Your task to perform on an android device: turn pop-ups on in chrome Image 0: 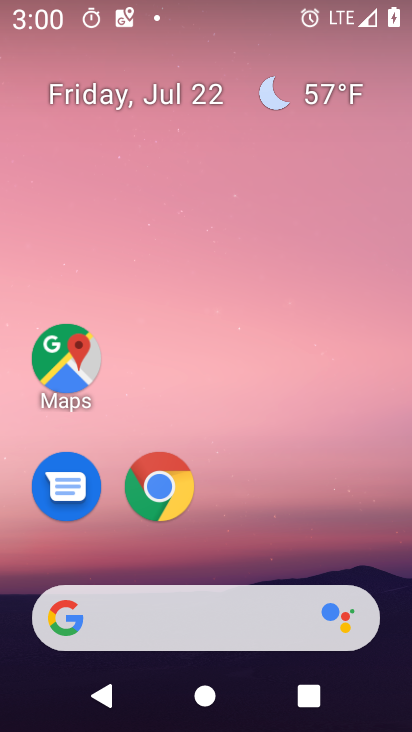
Step 0: press home button
Your task to perform on an android device: turn pop-ups on in chrome Image 1: 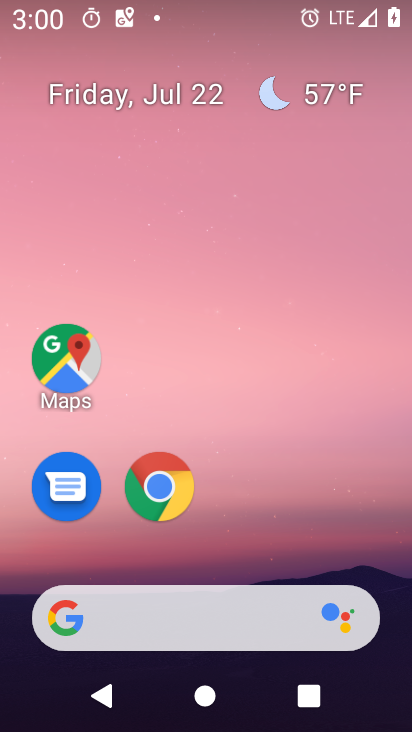
Step 1: drag from (373, 508) to (369, 142)
Your task to perform on an android device: turn pop-ups on in chrome Image 2: 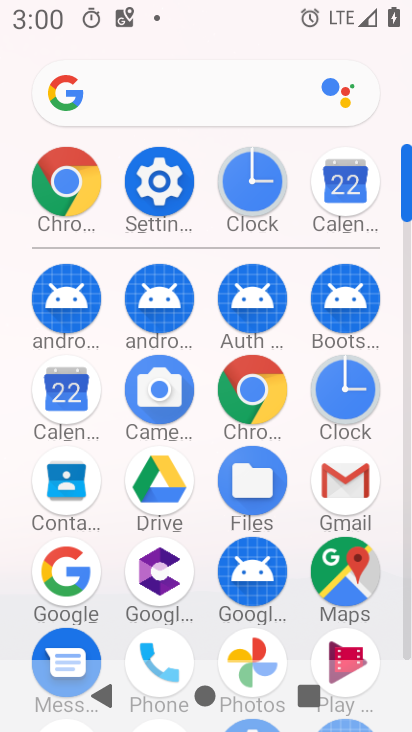
Step 2: click (264, 391)
Your task to perform on an android device: turn pop-ups on in chrome Image 3: 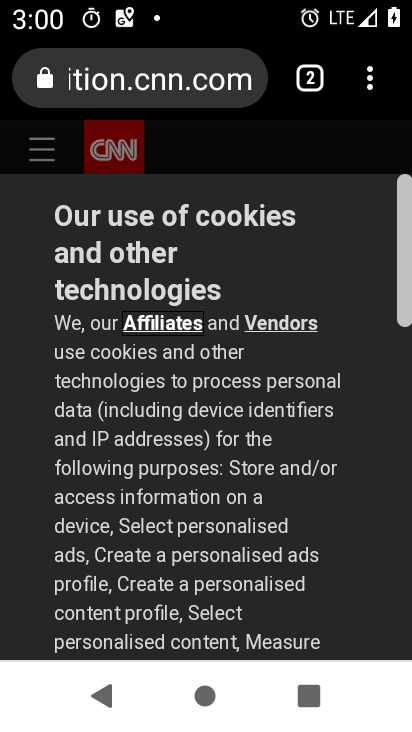
Step 3: click (371, 97)
Your task to perform on an android device: turn pop-ups on in chrome Image 4: 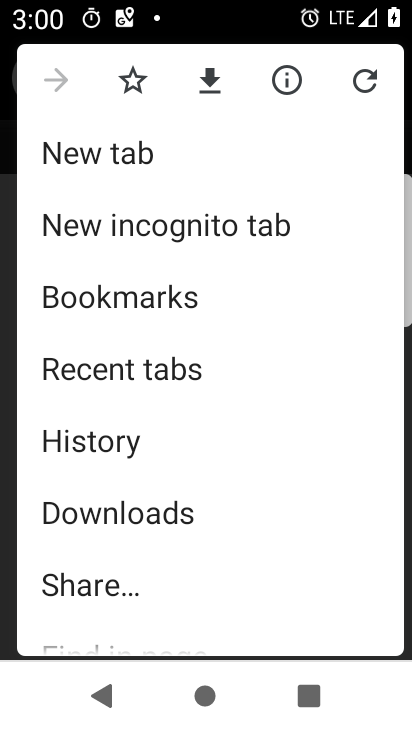
Step 4: drag from (352, 324) to (357, 251)
Your task to perform on an android device: turn pop-ups on in chrome Image 5: 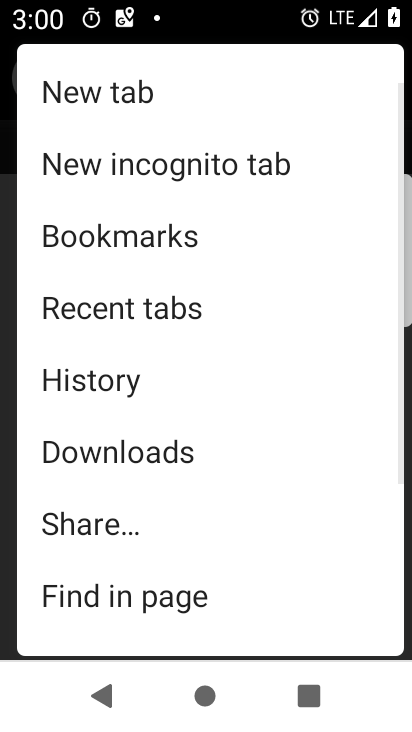
Step 5: drag from (338, 370) to (341, 296)
Your task to perform on an android device: turn pop-ups on in chrome Image 6: 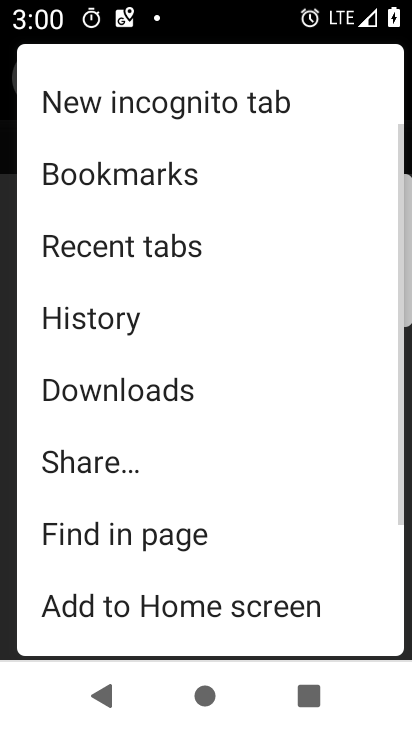
Step 6: drag from (327, 406) to (331, 307)
Your task to perform on an android device: turn pop-ups on in chrome Image 7: 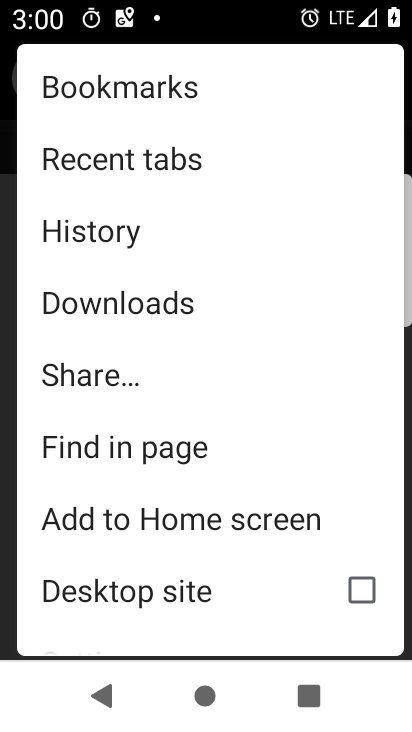
Step 7: drag from (315, 384) to (312, 291)
Your task to perform on an android device: turn pop-ups on in chrome Image 8: 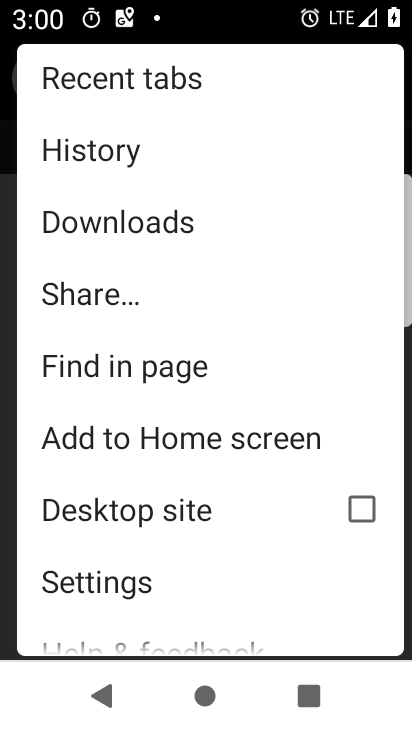
Step 8: drag from (315, 398) to (317, 318)
Your task to perform on an android device: turn pop-ups on in chrome Image 9: 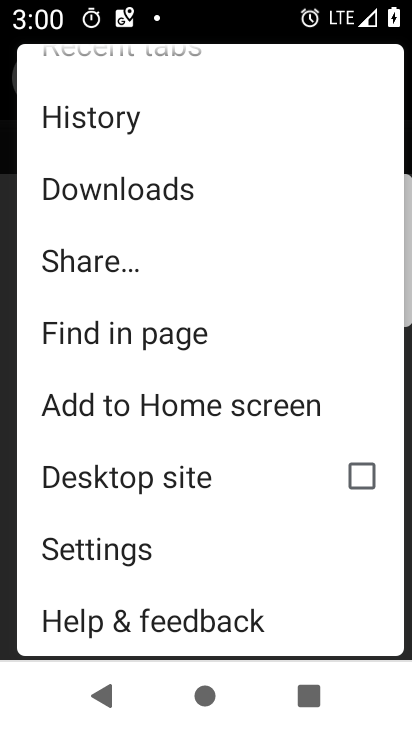
Step 9: click (276, 538)
Your task to perform on an android device: turn pop-ups on in chrome Image 10: 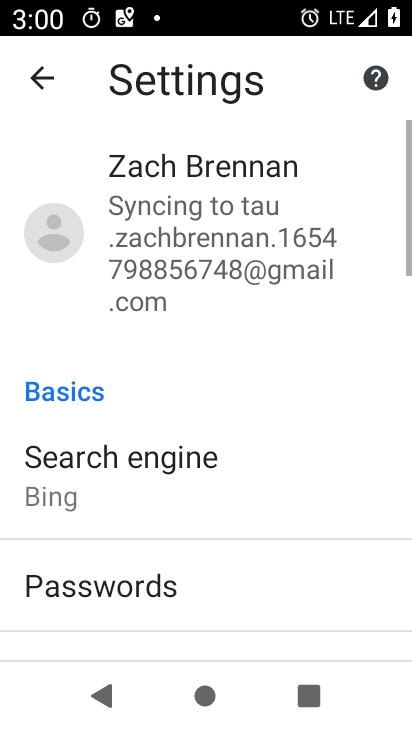
Step 10: drag from (277, 538) to (298, 421)
Your task to perform on an android device: turn pop-ups on in chrome Image 11: 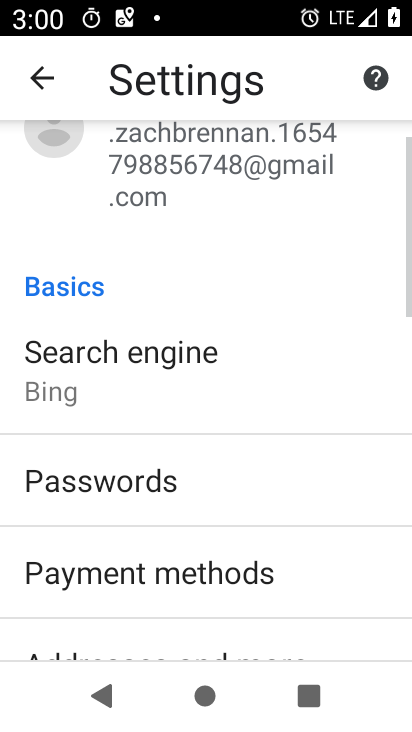
Step 11: drag from (316, 516) to (328, 359)
Your task to perform on an android device: turn pop-ups on in chrome Image 12: 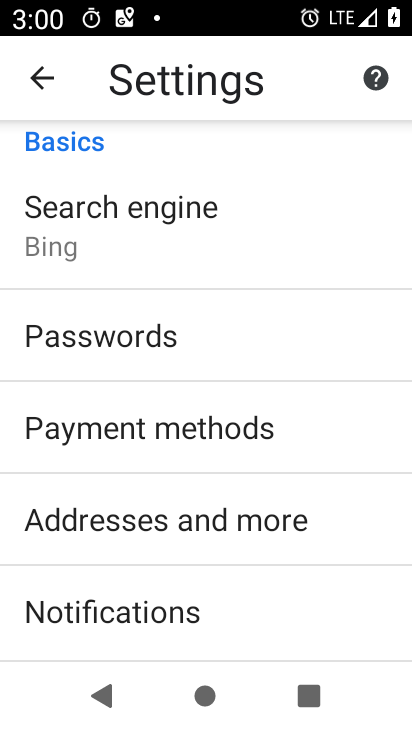
Step 12: drag from (344, 528) to (351, 438)
Your task to perform on an android device: turn pop-ups on in chrome Image 13: 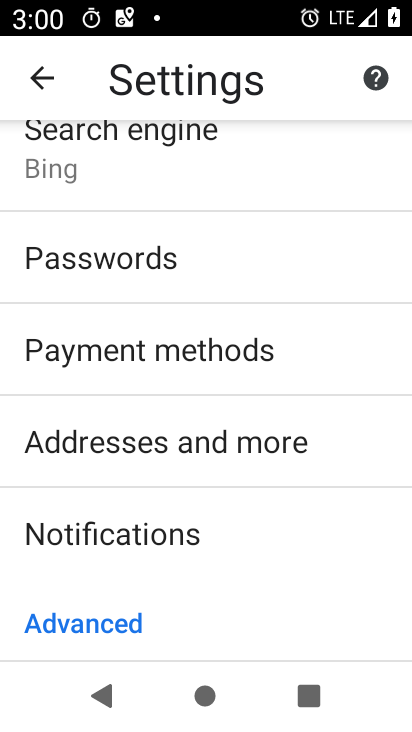
Step 13: drag from (350, 535) to (349, 432)
Your task to perform on an android device: turn pop-ups on in chrome Image 14: 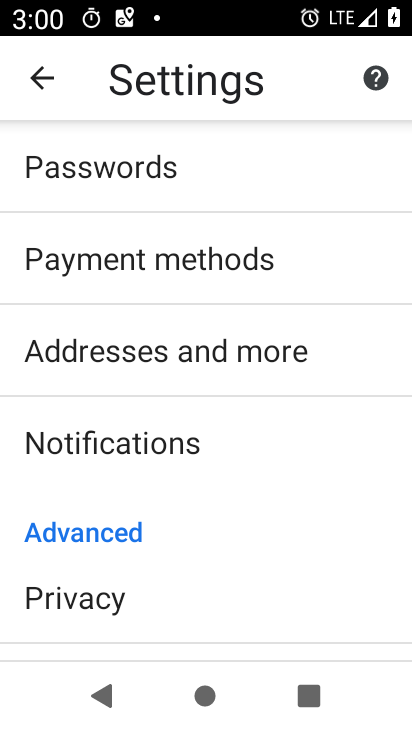
Step 14: drag from (330, 562) to (330, 415)
Your task to perform on an android device: turn pop-ups on in chrome Image 15: 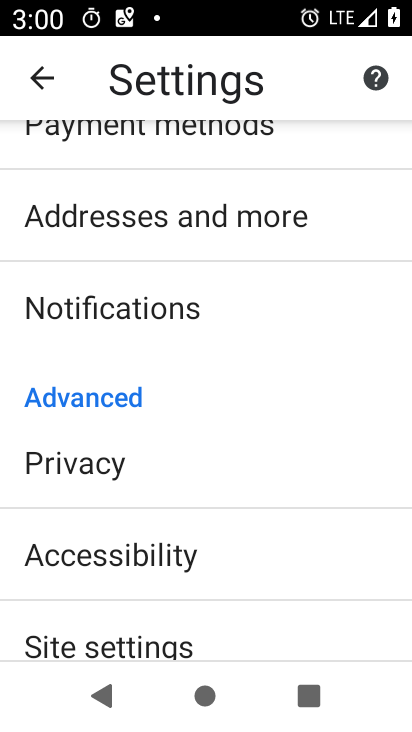
Step 15: drag from (320, 545) to (324, 441)
Your task to perform on an android device: turn pop-ups on in chrome Image 16: 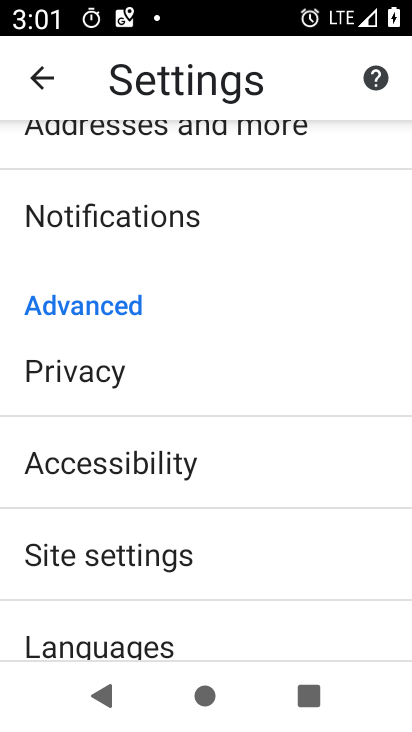
Step 16: click (357, 571)
Your task to perform on an android device: turn pop-ups on in chrome Image 17: 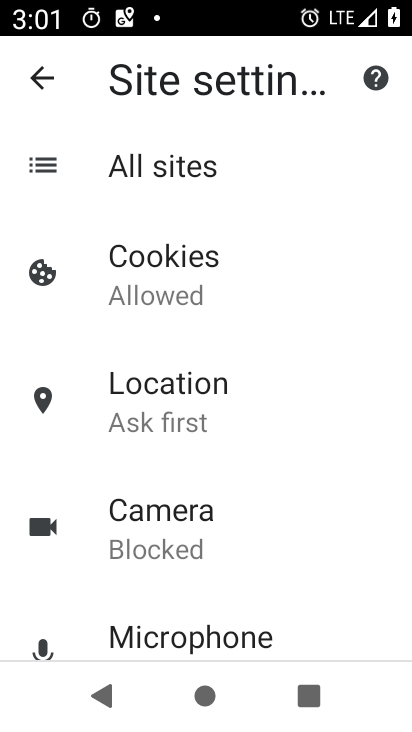
Step 17: drag from (347, 559) to (344, 385)
Your task to perform on an android device: turn pop-ups on in chrome Image 18: 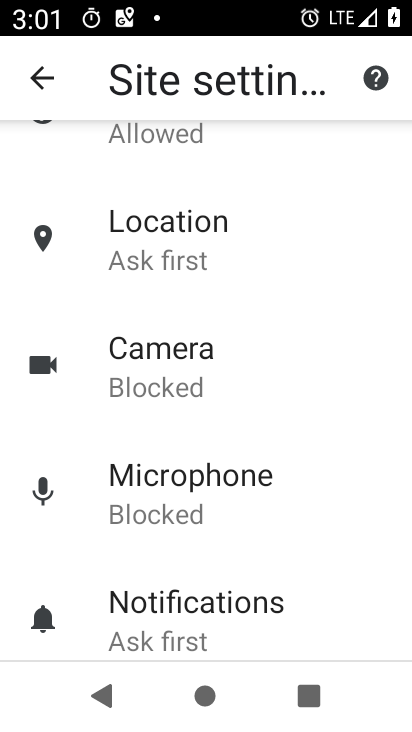
Step 18: drag from (344, 532) to (349, 429)
Your task to perform on an android device: turn pop-ups on in chrome Image 19: 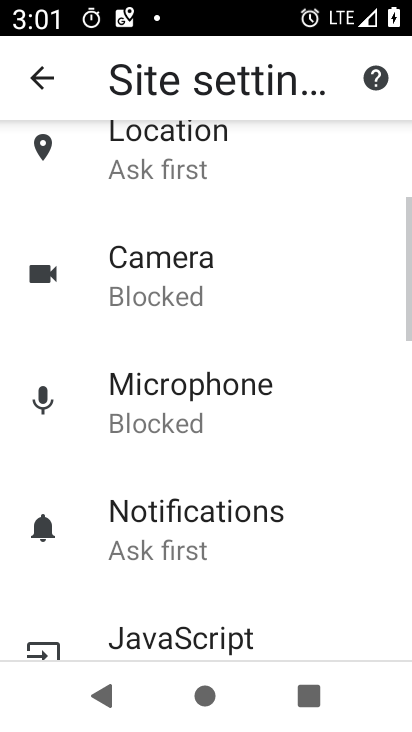
Step 19: drag from (343, 539) to (337, 418)
Your task to perform on an android device: turn pop-ups on in chrome Image 20: 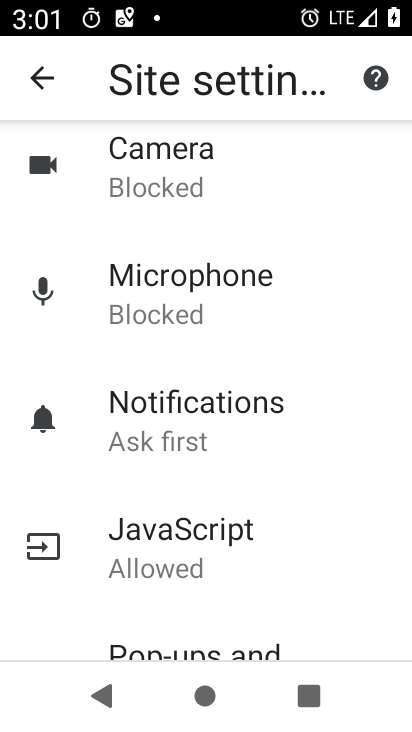
Step 20: drag from (327, 537) to (332, 448)
Your task to perform on an android device: turn pop-ups on in chrome Image 21: 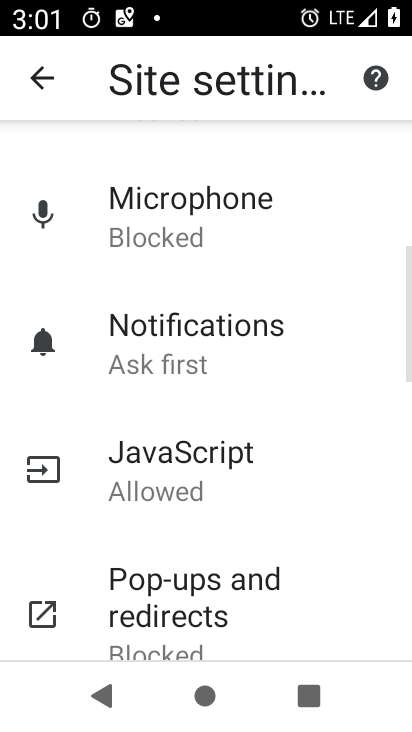
Step 21: drag from (344, 575) to (342, 467)
Your task to perform on an android device: turn pop-ups on in chrome Image 22: 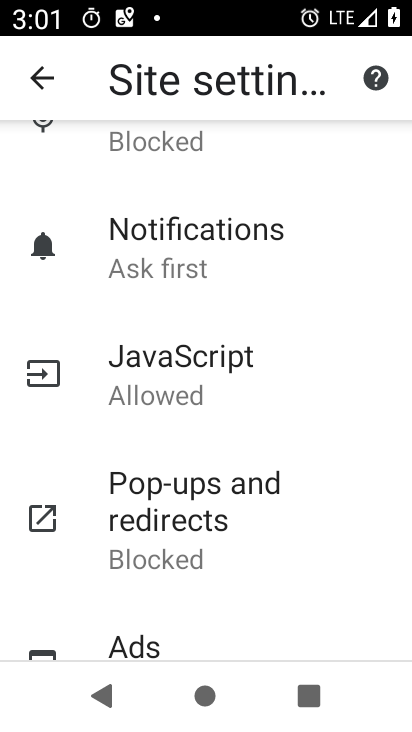
Step 22: drag from (338, 526) to (345, 439)
Your task to perform on an android device: turn pop-ups on in chrome Image 23: 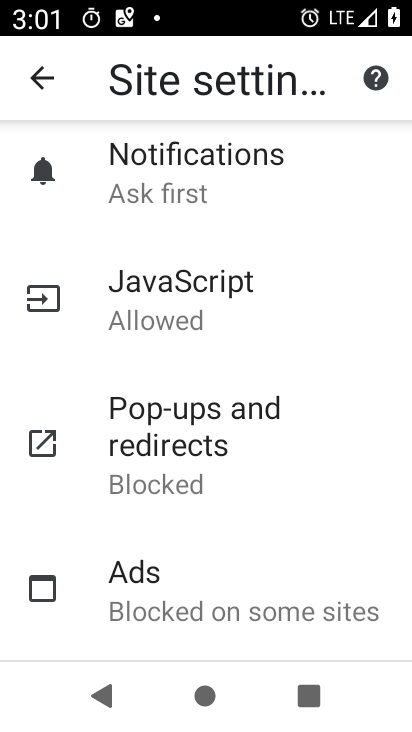
Step 23: drag from (328, 494) to (335, 411)
Your task to perform on an android device: turn pop-ups on in chrome Image 24: 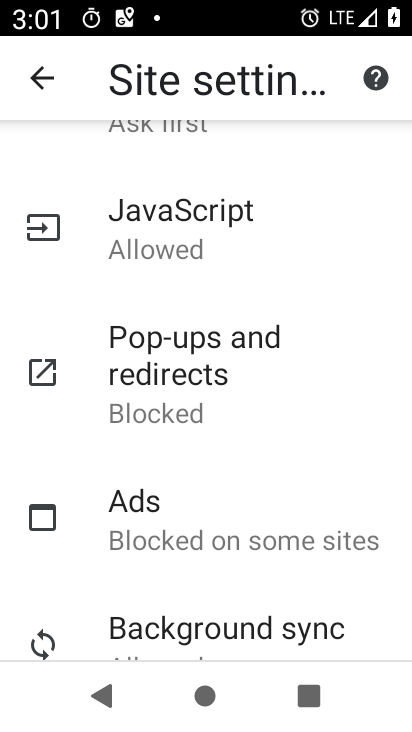
Step 24: click (245, 402)
Your task to perform on an android device: turn pop-ups on in chrome Image 25: 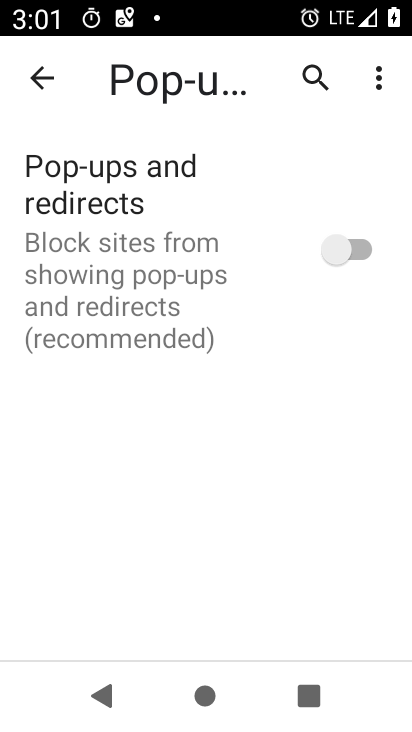
Step 25: click (333, 257)
Your task to perform on an android device: turn pop-ups on in chrome Image 26: 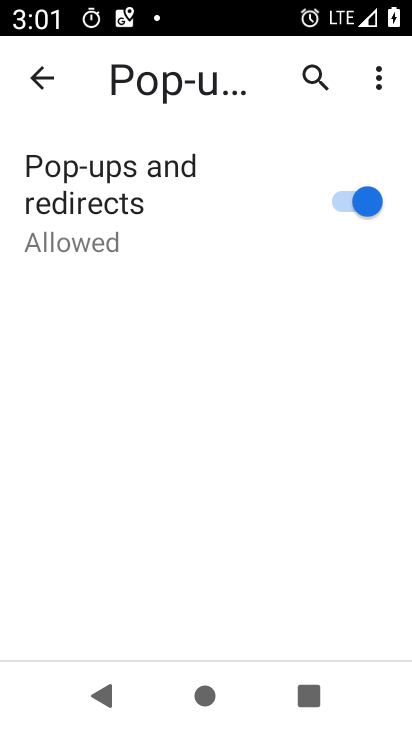
Step 26: task complete